Your task to perform on an android device: Go to sound settings Image 0: 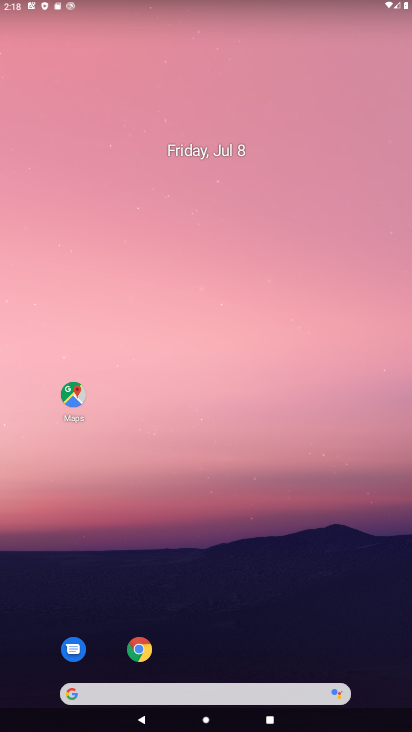
Step 0: drag from (361, 669) to (333, 44)
Your task to perform on an android device: Go to sound settings Image 1: 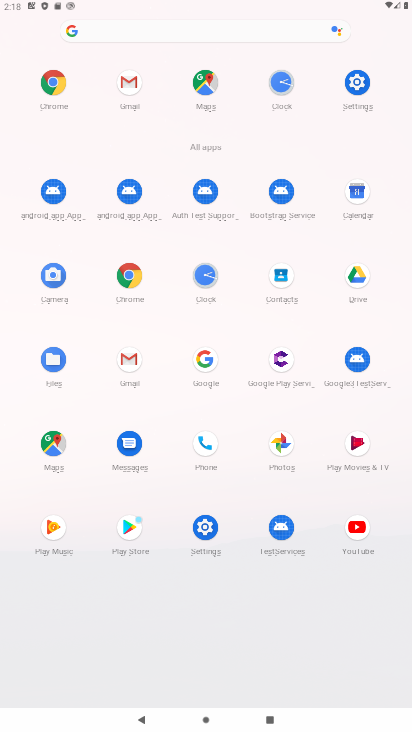
Step 1: click (204, 527)
Your task to perform on an android device: Go to sound settings Image 2: 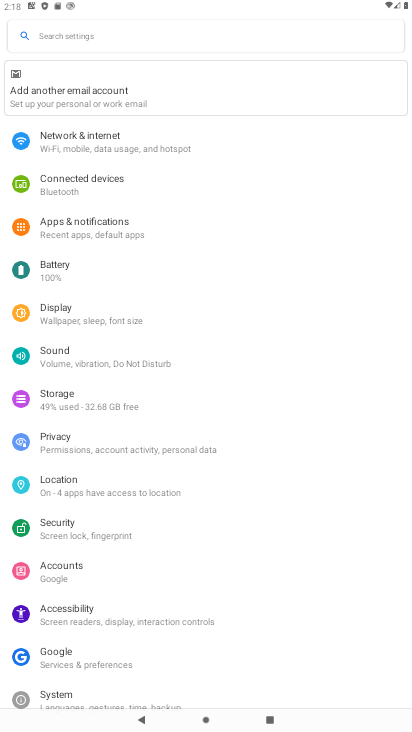
Step 2: click (48, 356)
Your task to perform on an android device: Go to sound settings Image 3: 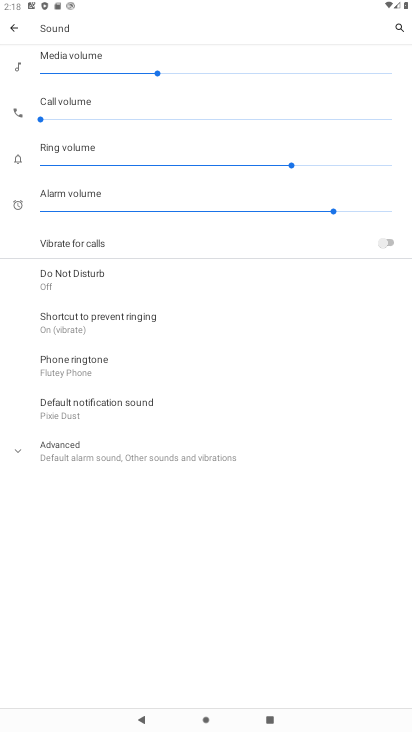
Step 3: click (16, 451)
Your task to perform on an android device: Go to sound settings Image 4: 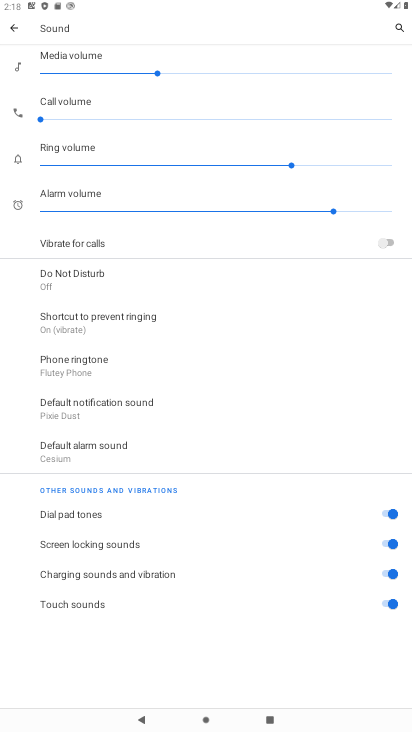
Step 4: task complete